Your task to perform on an android device: Go to Yahoo.com Image 0: 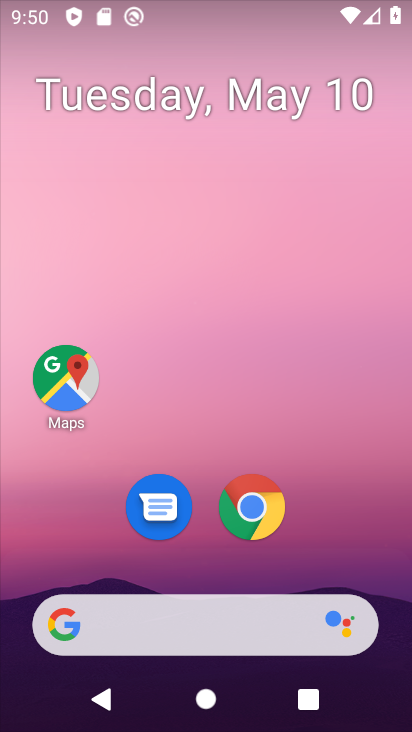
Step 0: click (252, 514)
Your task to perform on an android device: Go to Yahoo.com Image 1: 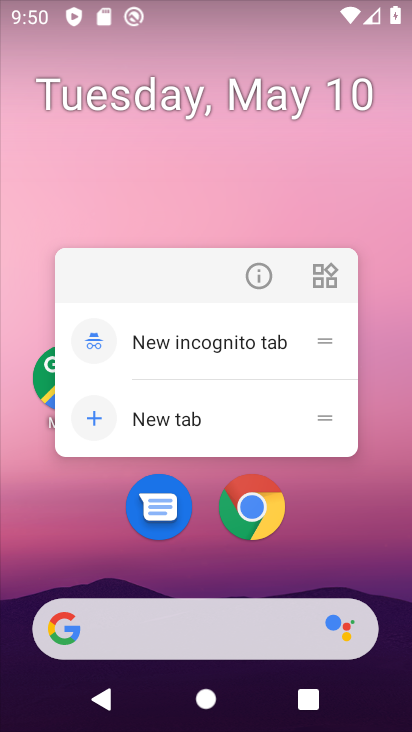
Step 1: click (252, 514)
Your task to perform on an android device: Go to Yahoo.com Image 2: 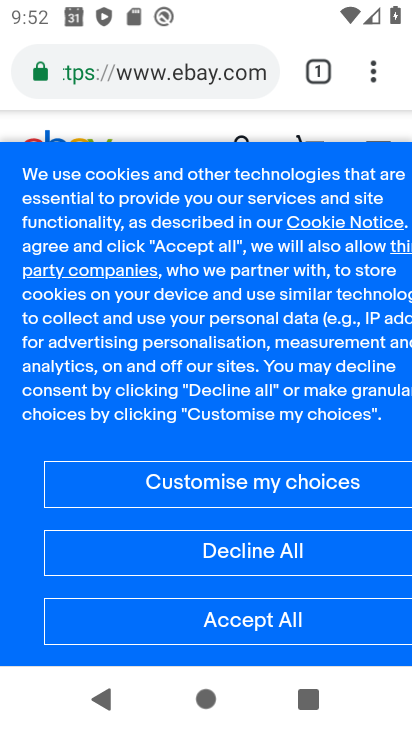
Step 2: click (328, 82)
Your task to perform on an android device: Go to Yahoo.com Image 3: 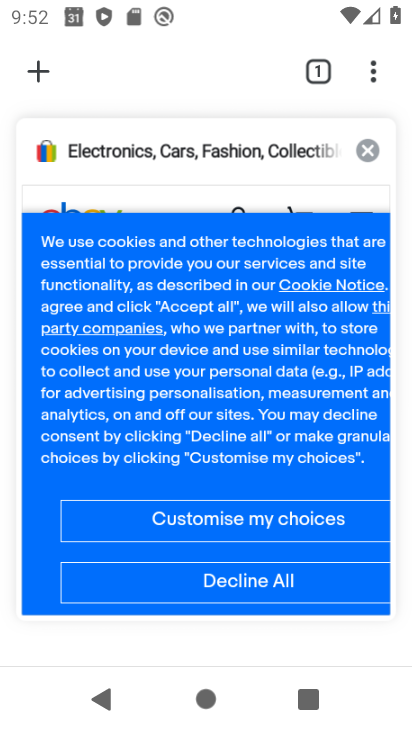
Step 3: click (53, 67)
Your task to perform on an android device: Go to Yahoo.com Image 4: 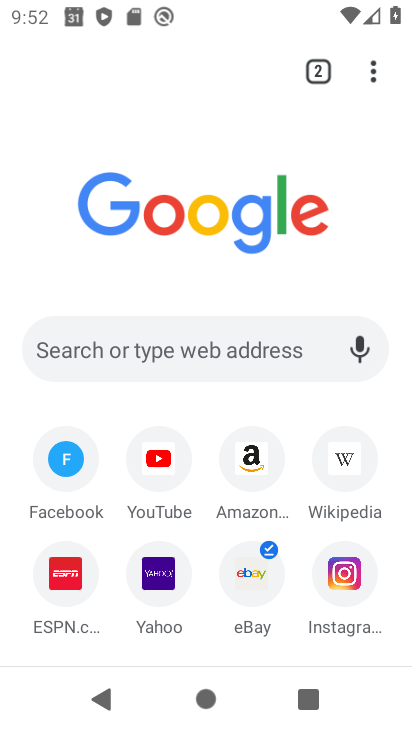
Step 4: click (167, 569)
Your task to perform on an android device: Go to Yahoo.com Image 5: 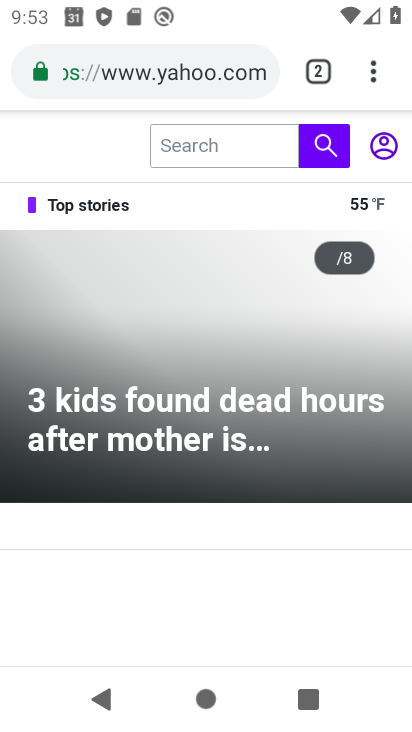
Step 5: task complete